Your task to perform on an android device: turn on location history Image 0: 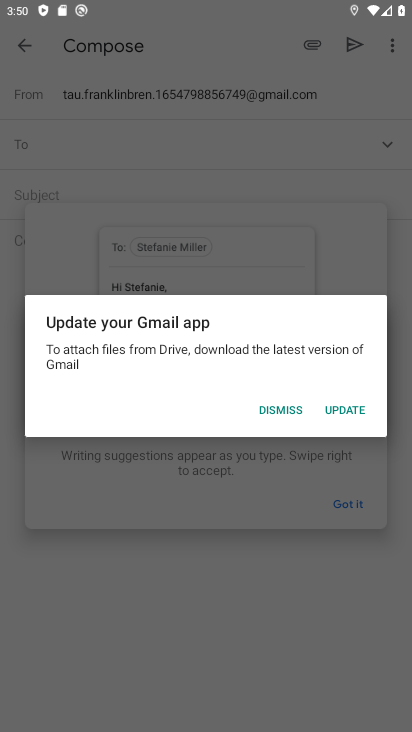
Step 0: press home button
Your task to perform on an android device: turn on location history Image 1: 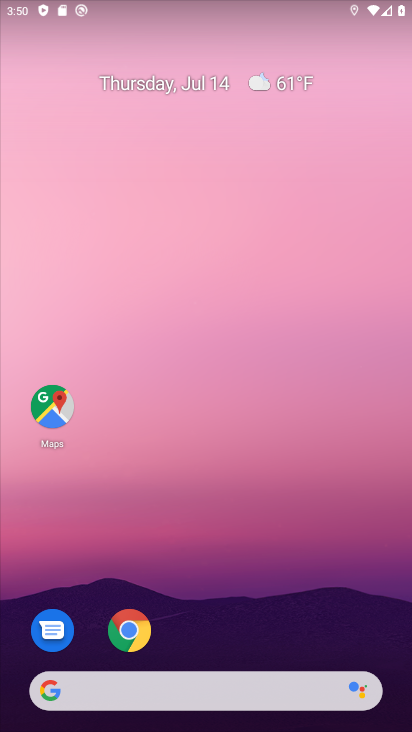
Step 1: drag from (307, 568) to (244, 147)
Your task to perform on an android device: turn on location history Image 2: 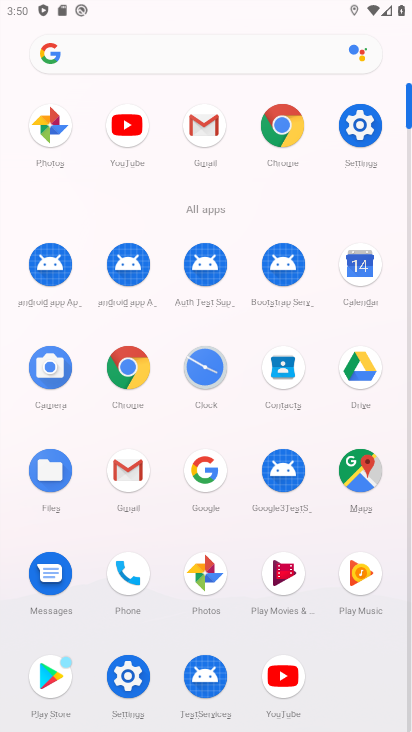
Step 2: click (368, 476)
Your task to perform on an android device: turn on location history Image 3: 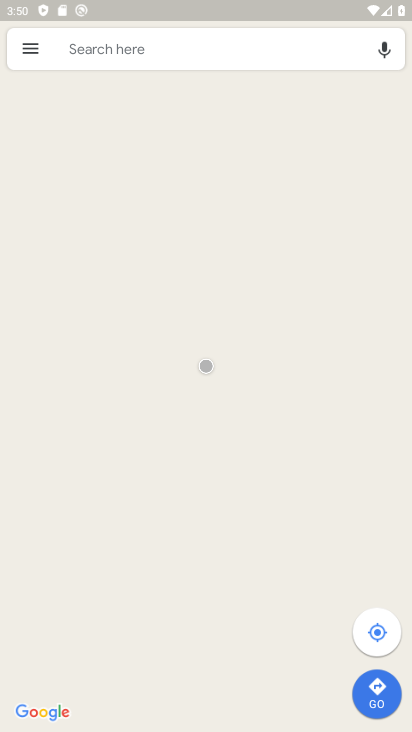
Step 3: click (34, 62)
Your task to perform on an android device: turn on location history Image 4: 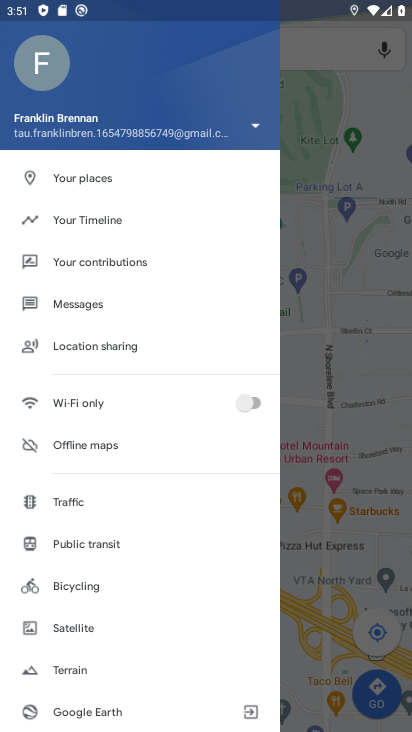
Step 4: click (88, 222)
Your task to perform on an android device: turn on location history Image 5: 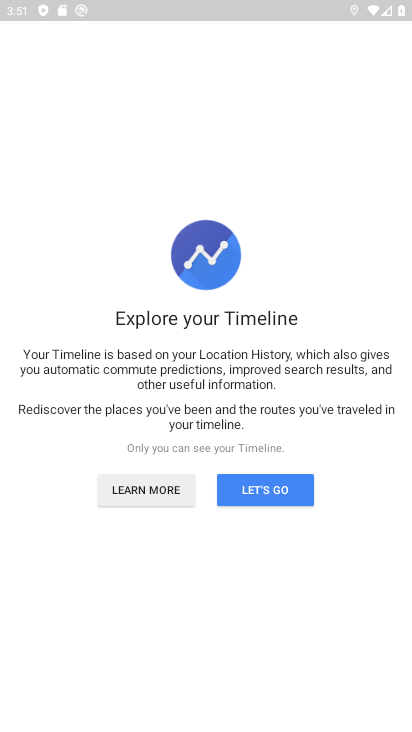
Step 5: click (268, 487)
Your task to perform on an android device: turn on location history Image 6: 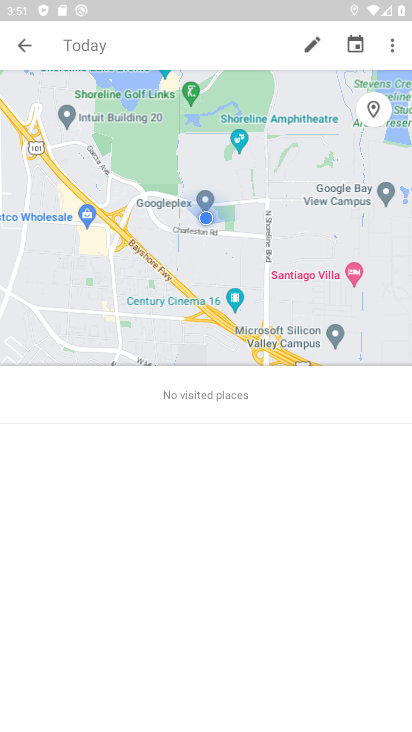
Step 6: click (385, 42)
Your task to perform on an android device: turn on location history Image 7: 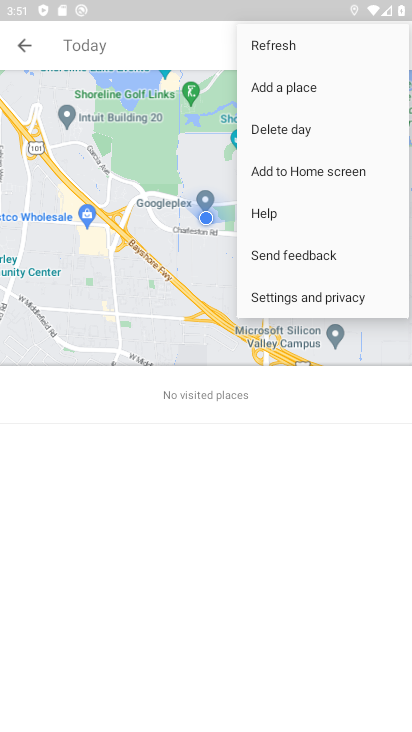
Step 7: click (306, 293)
Your task to perform on an android device: turn on location history Image 8: 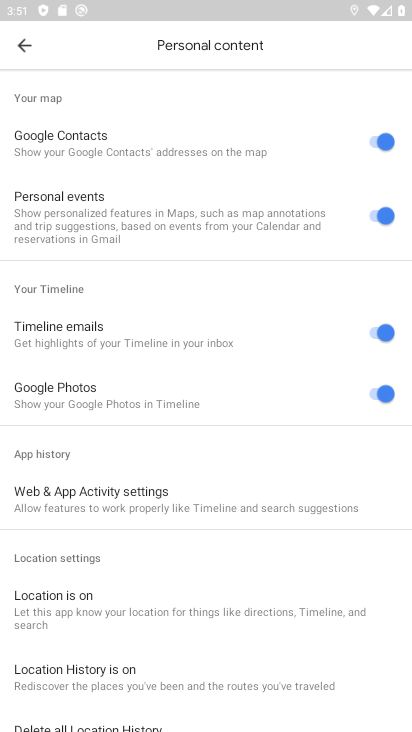
Step 8: click (198, 670)
Your task to perform on an android device: turn on location history Image 9: 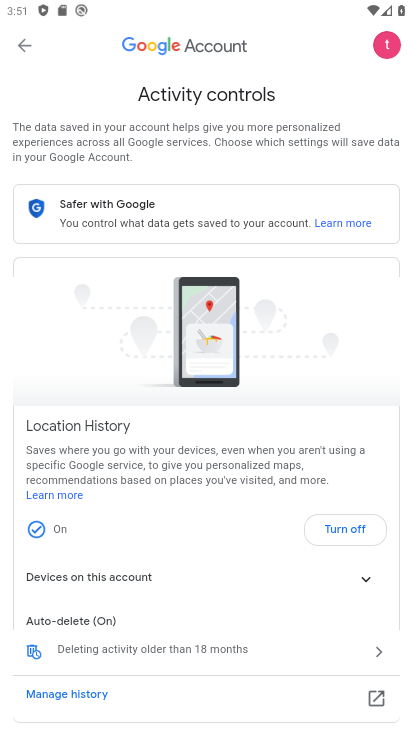
Step 9: task complete